Your task to perform on an android device: Open the stopwatch Image 0: 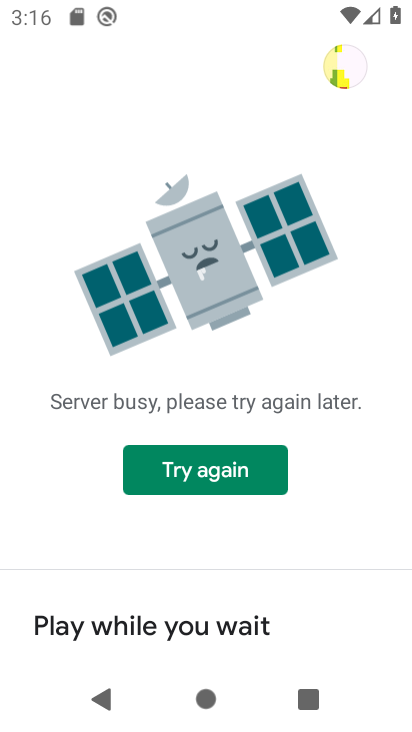
Step 0: press home button
Your task to perform on an android device: Open the stopwatch Image 1: 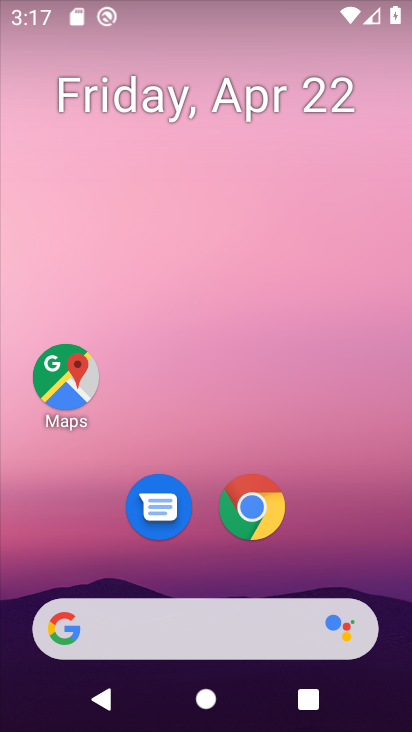
Step 1: drag from (343, 545) to (356, 124)
Your task to perform on an android device: Open the stopwatch Image 2: 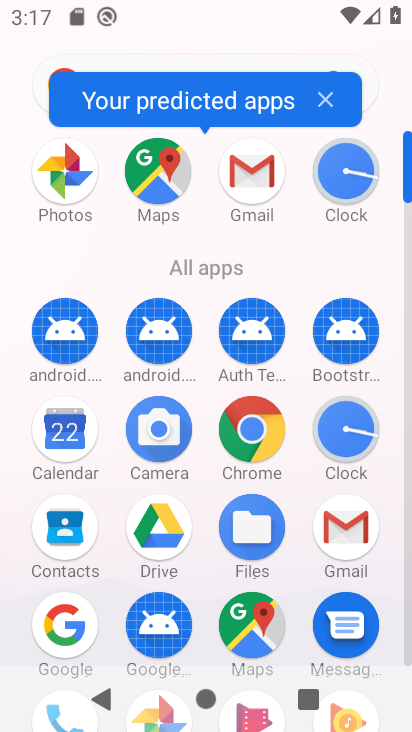
Step 2: click (351, 184)
Your task to perform on an android device: Open the stopwatch Image 3: 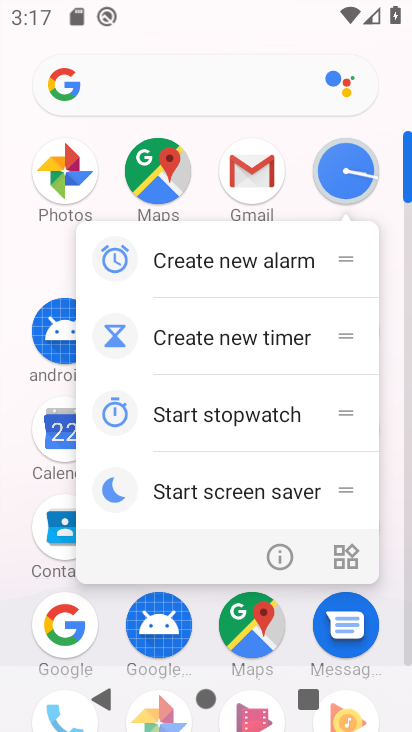
Step 3: click (351, 184)
Your task to perform on an android device: Open the stopwatch Image 4: 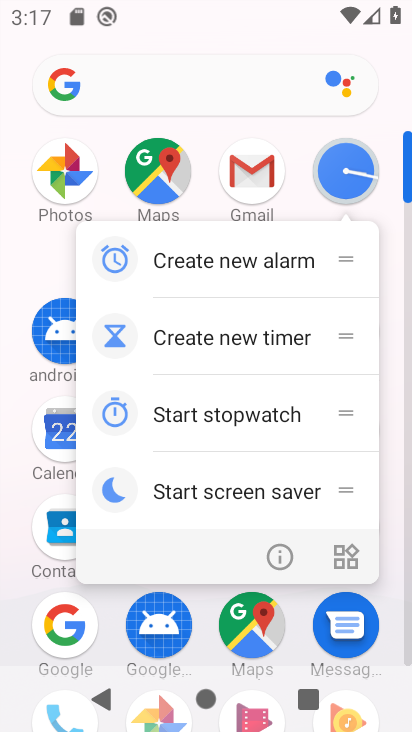
Step 4: click (351, 184)
Your task to perform on an android device: Open the stopwatch Image 5: 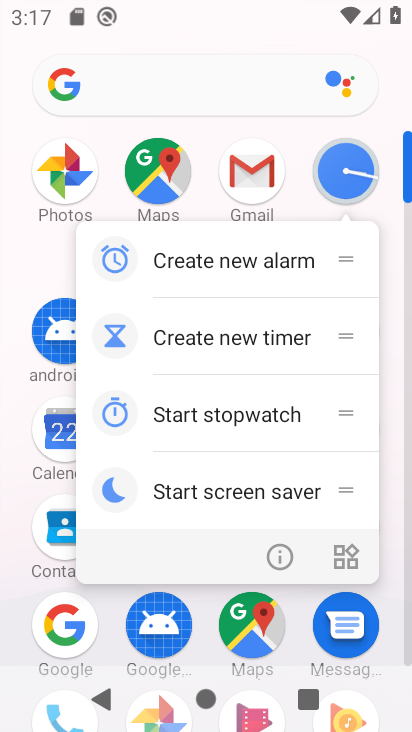
Step 5: click (351, 184)
Your task to perform on an android device: Open the stopwatch Image 6: 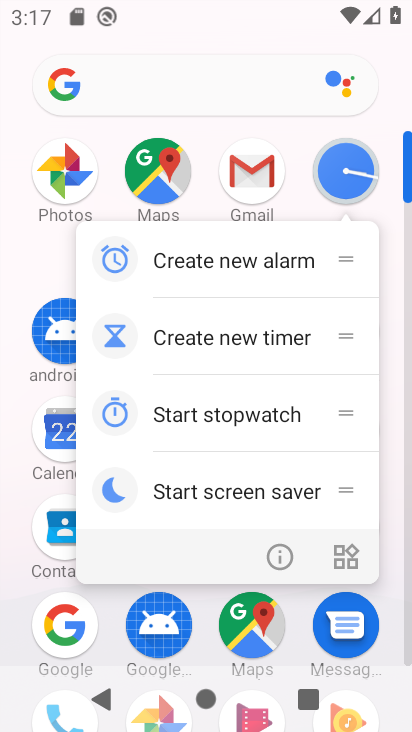
Step 6: click (351, 183)
Your task to perform on an android device: Open the stopwatch Image 7: 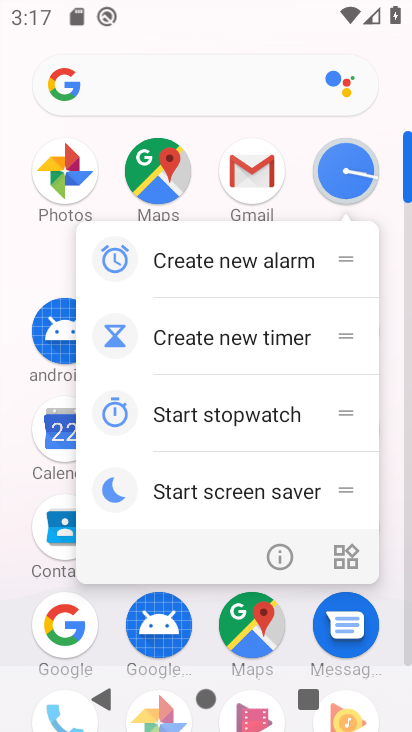
Step 7: click (351, 183)
Your task to perform on an android device: Open the stopwatch Image 8: 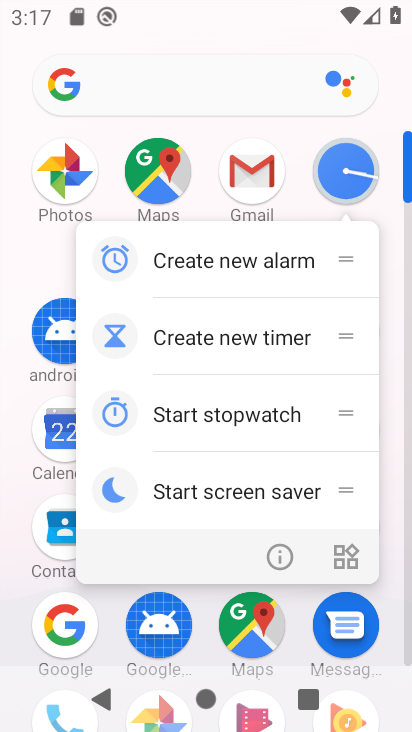
Step 8: click (351, 183)
Your task to perform on an android device: Open the stopwatch Image 9: 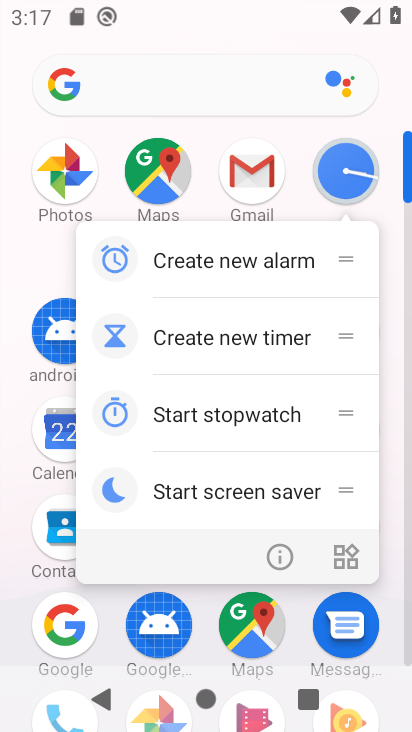
Step 9: click (351, 182)
Your task to perform on an android device: Open the stopwatch Image 10: 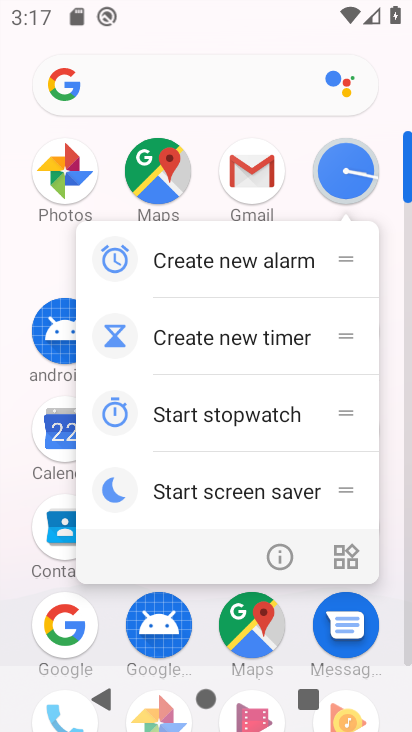
Step 10: click (351, 182)
Your task to perform on an android device: Open the stopwatch Image 11: 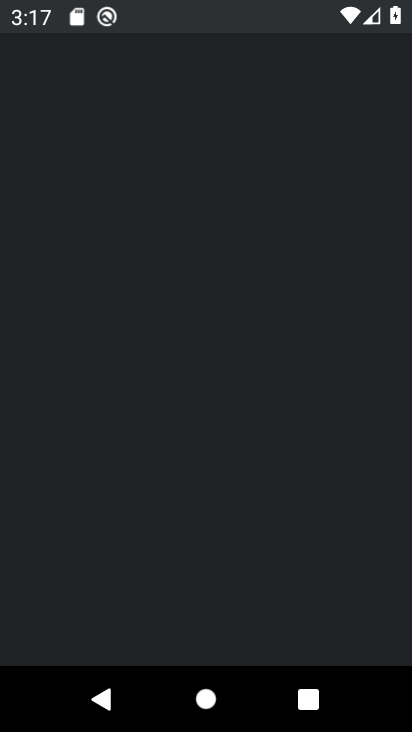
Step 11: click (351, 182)
Your task to perform on an android device: Open the stopwatch Image 12: 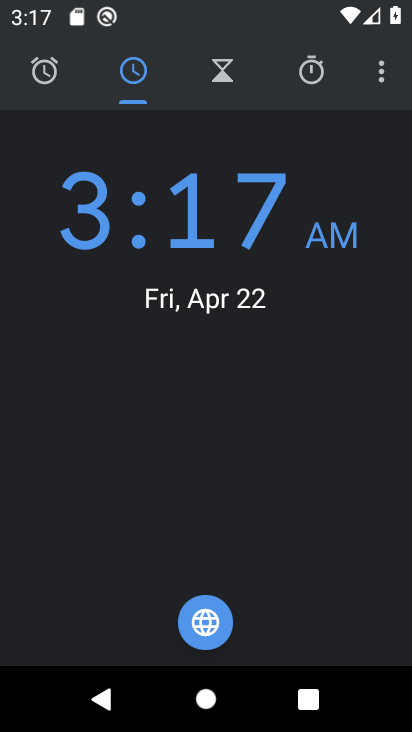
Step 12: click (309, 86)
Your task to perform on an android device: Open the stopwatch Image 13: 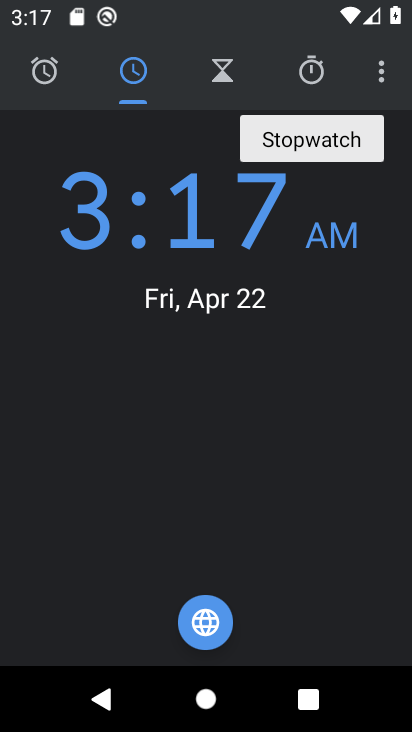
Step 13: click (309, 86)
Your task to perform on an android device: Open the stopwatch Image 14: 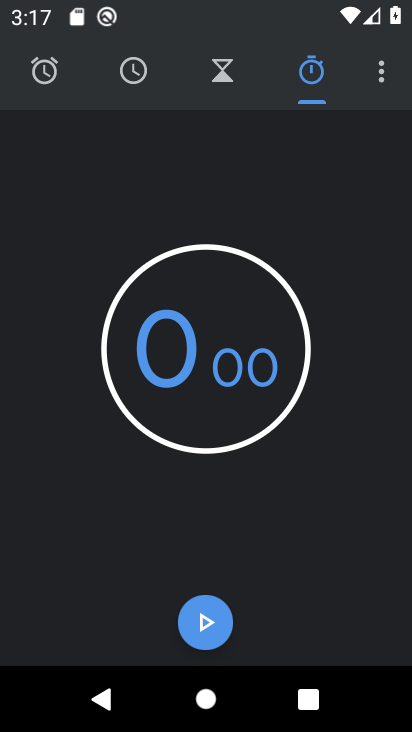
Step 14: click (213, 622)
Your task to perform on an android device: Open the stopwatch Image 15: 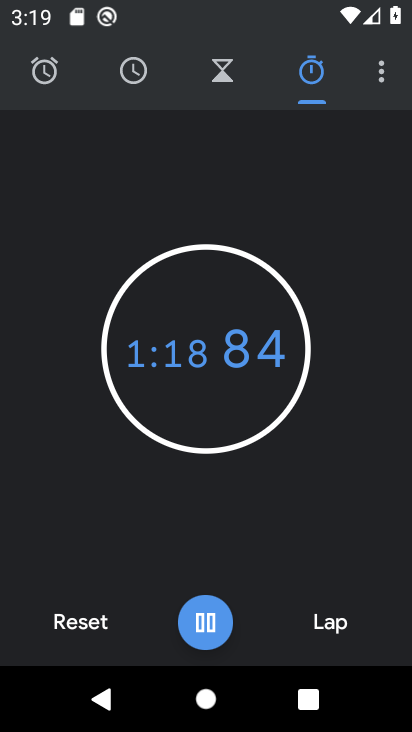
Step 15: task complete